Your task to perform on an android device: Open accessibility settings Image 0: 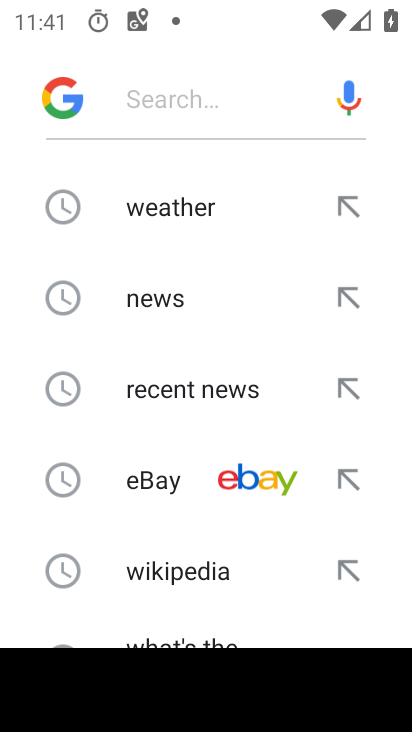
Step 0: press home button
Your task to perform on an android device: Open accessibility settings Image 1: 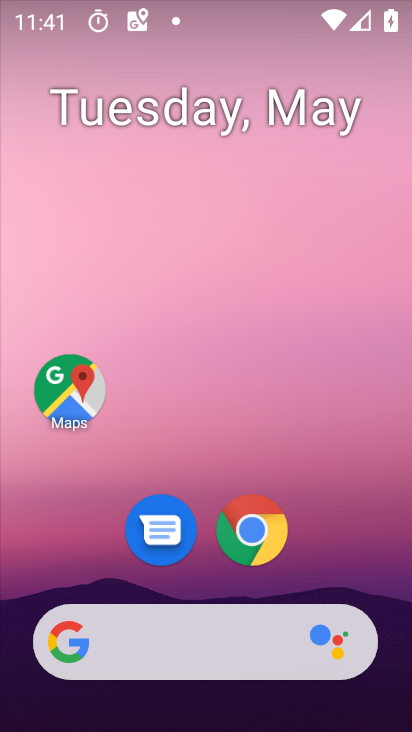
Step 1: drag from (241, 645) to (205, 92)
Your task to perform on an android device: Open accessibility settings Image 2: 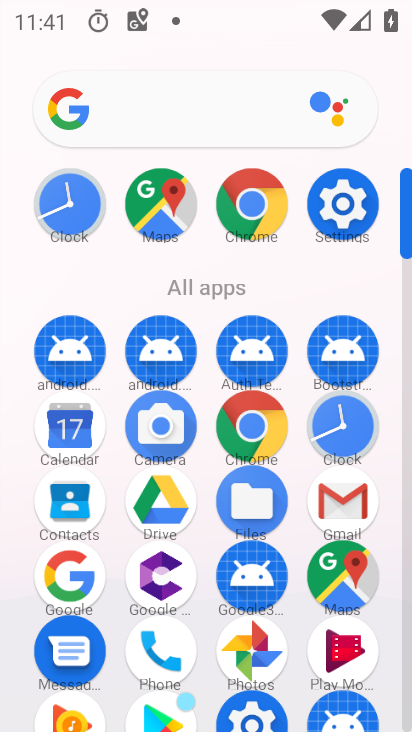
Step 2: click (360, 211)
Your task to perform on an android device: Open accessibility settings Image 3: 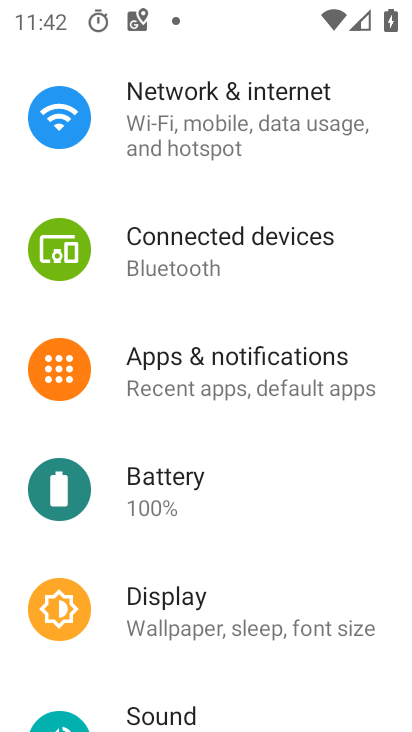
Step 3: drag from (135, 594) to (156, 91)
Your task to perform on an android device: Open accessibility settings Image 4: 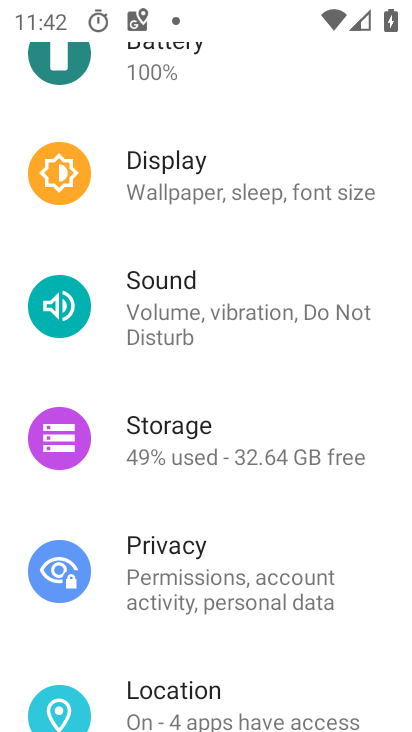
Step 4: drag from (216, 665) to (241, 154)
Your task to perform on an android device: Open accessibility settings Image 5: 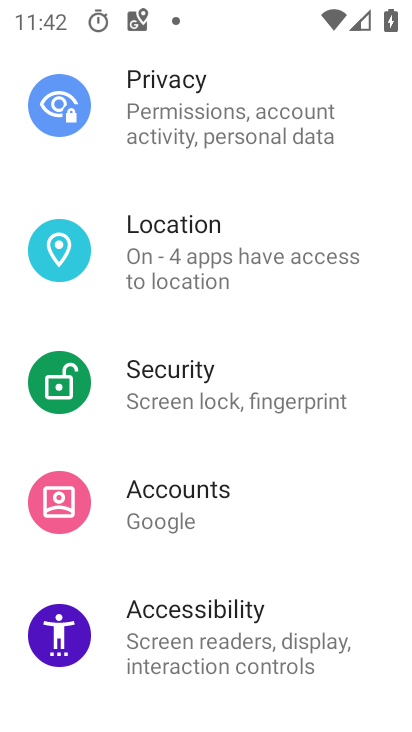
Step 5: drag from (193, 696) to (220, 257)
Your task to perform on an android device: Open accessibility settings Image 6: 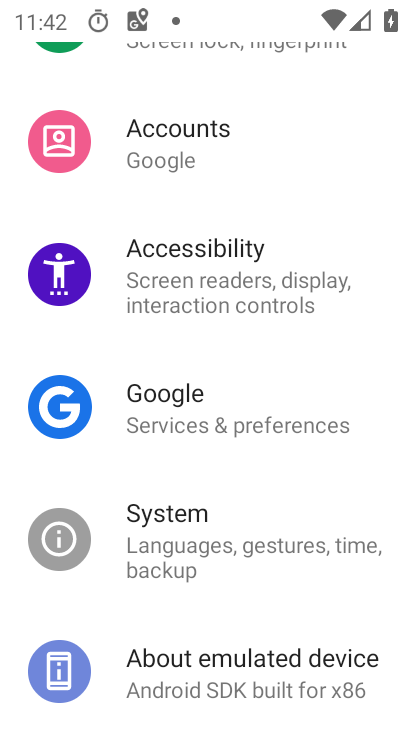
Step 6: click (209, 279)
Your task to perform on an android device: Open accessibility settings Image 7: 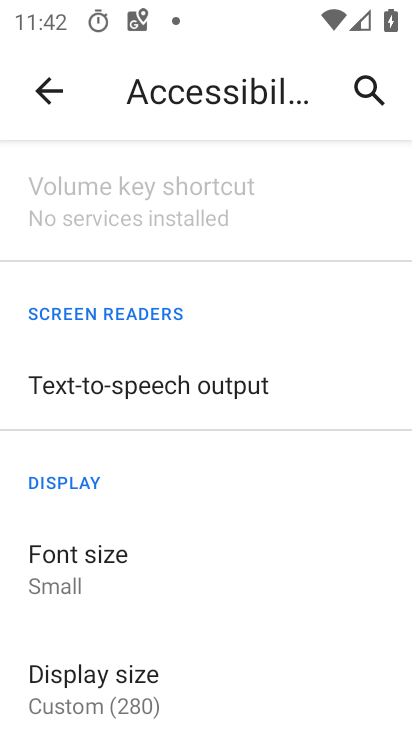
Step 7: task complete